Your task to perform on an android device: Go to Google maps Image 0: 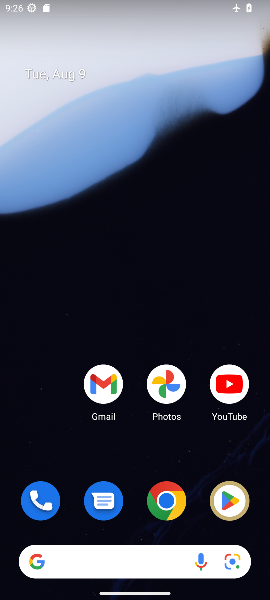
Step 0: drag from (127, 405) to (160, 153)
Your task to perform on an android device: Go to Google maps Image 1: 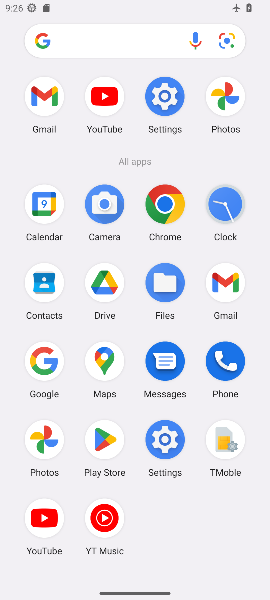
Step 1: click (112, 362)
Your task to perform on an android device: Go to Google maps Image 2: 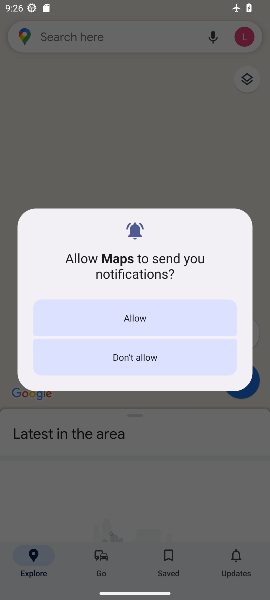
Step 2: task complete